Your task to perform on an android device: clear history in the chrome app Image 0: 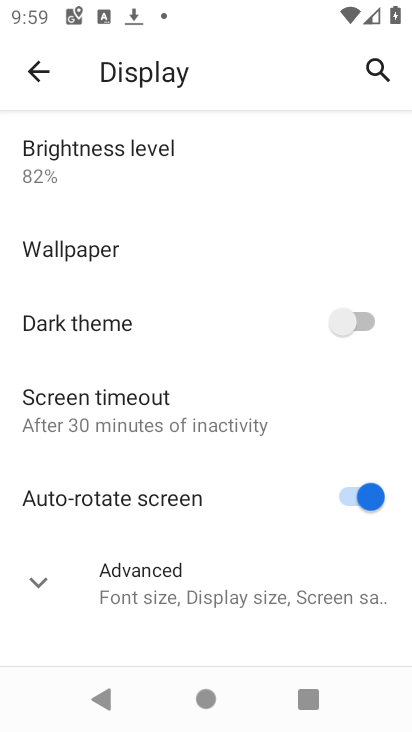
Step 0: press home button
Your task to perform on an android device: clear history in the chrome app Image 1: 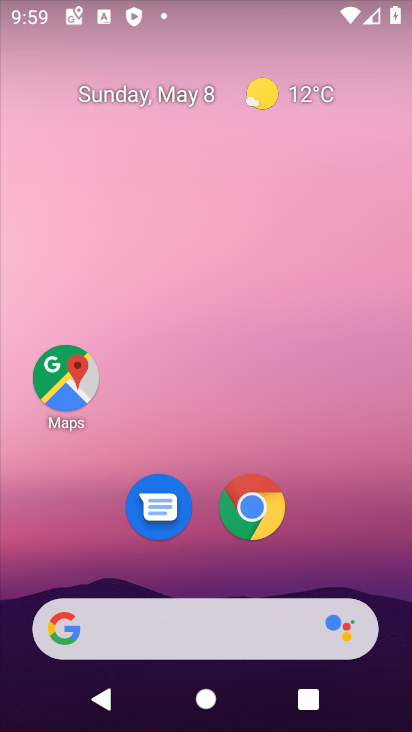
Step 1: click (252, 508)
Your task to perform on an android device: clear history in the chrome app Image 2: 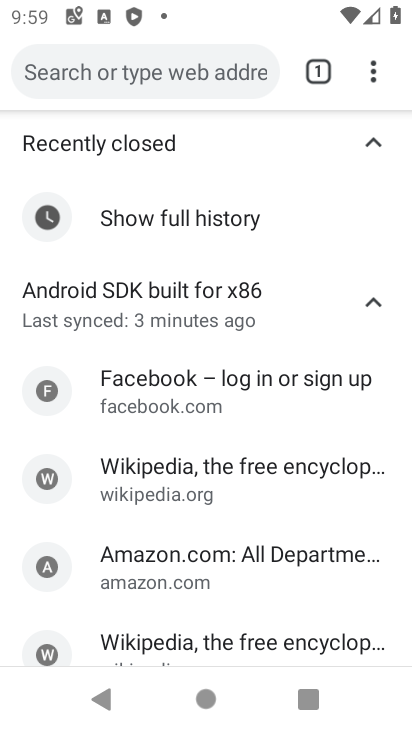
Step 2: click (377, 68)
Your task to perform on an android device: clear history in the chrome app Image 3: 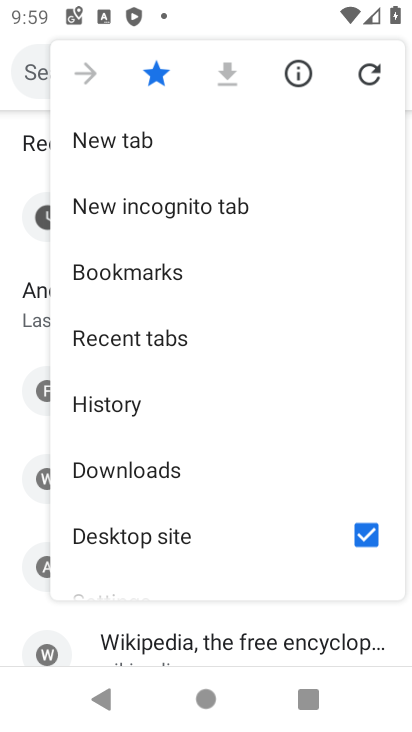
Step 3: click (112, 404)
Your task to perform on an android device: clear history in the chrome app Image 4: 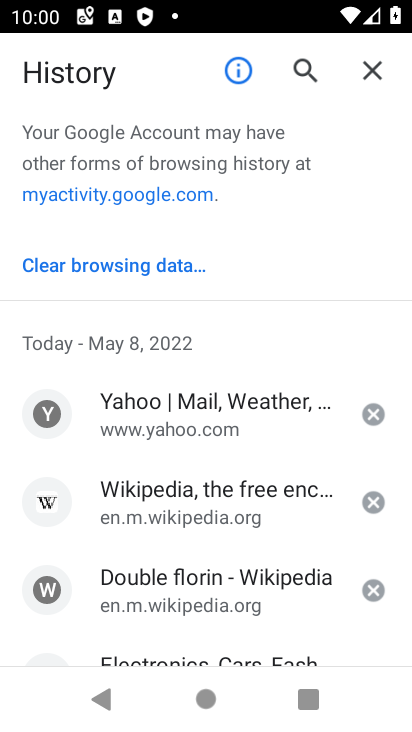
Step 4: click (148, 266)
Your task to perform on an android device: clear history in the chrome app Image 5: 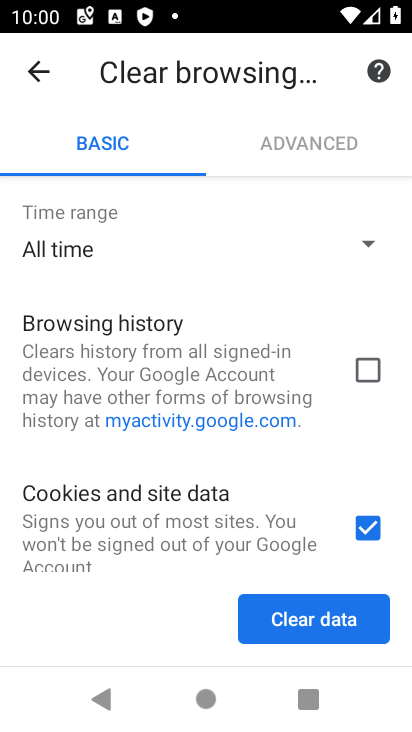
Step 5: click (320, 607)
Your task to perform on an android device: clear history in the chrome app Image 6: 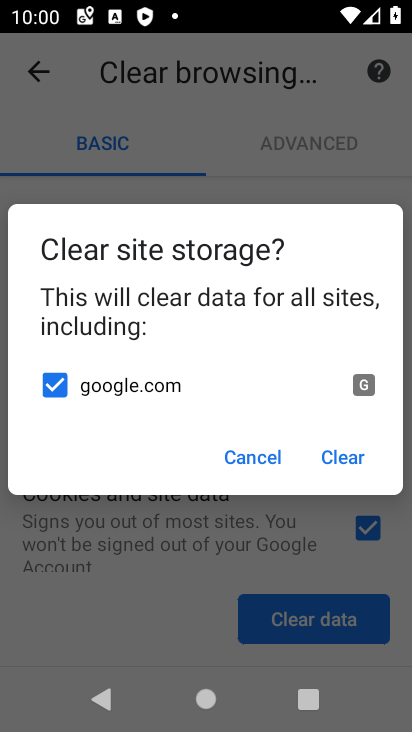
Step 6: click (351, 458)
Your task to perform on an android device: clear history in the chrome app Image 7: 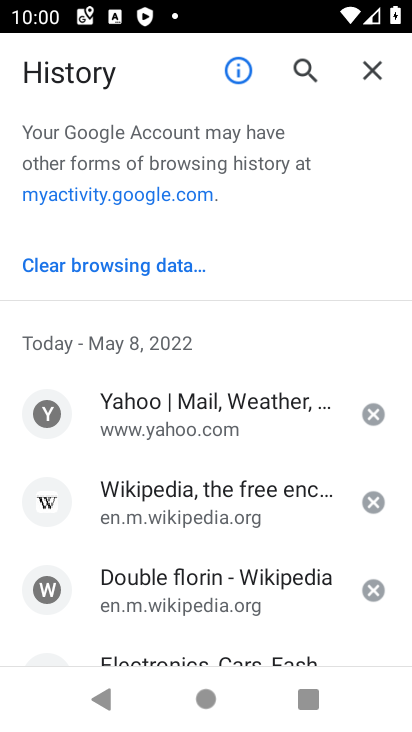
Step 7: task complete